Your task to perform on an android device: uninstall "Skype" Image 0: 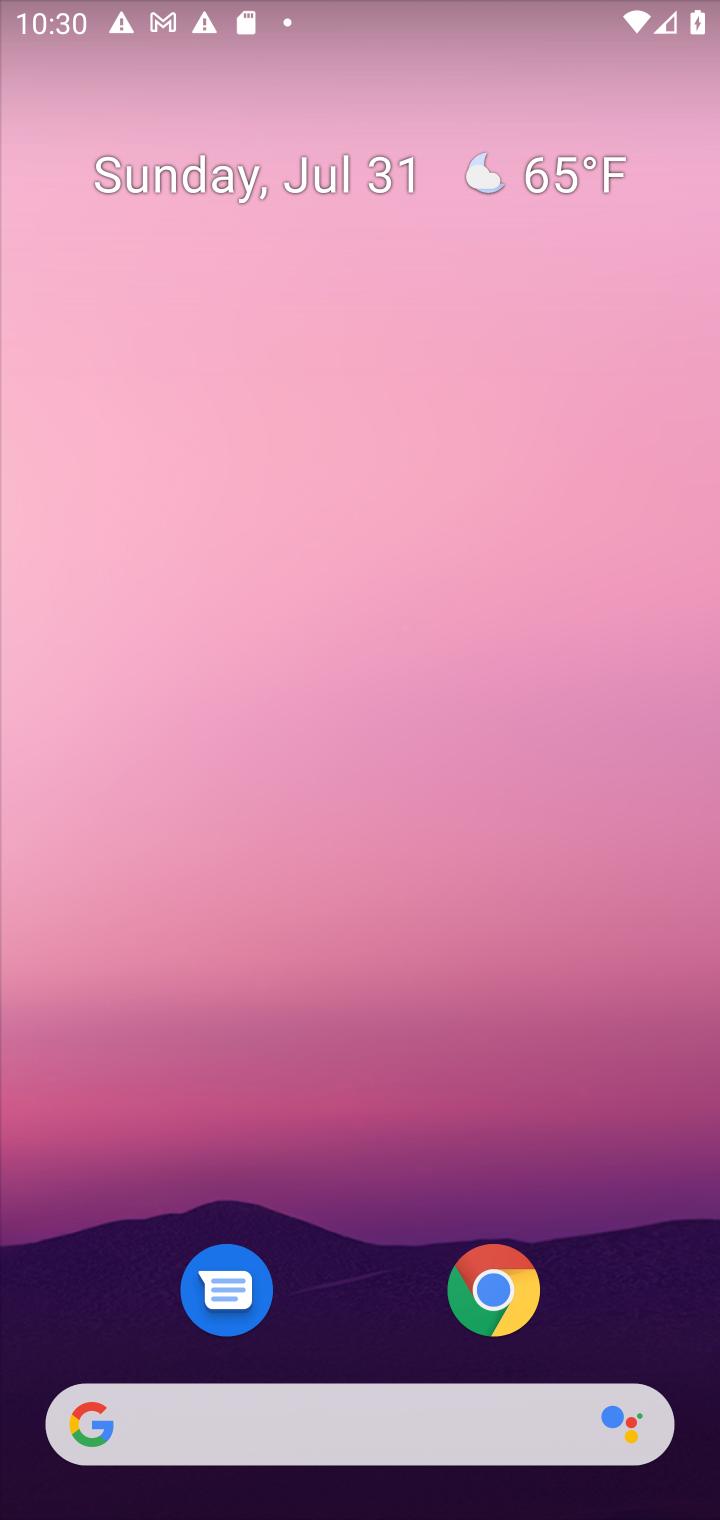
Step 0: press home button
Your task to perform on an android device: uninstall "Skype" Image 1: 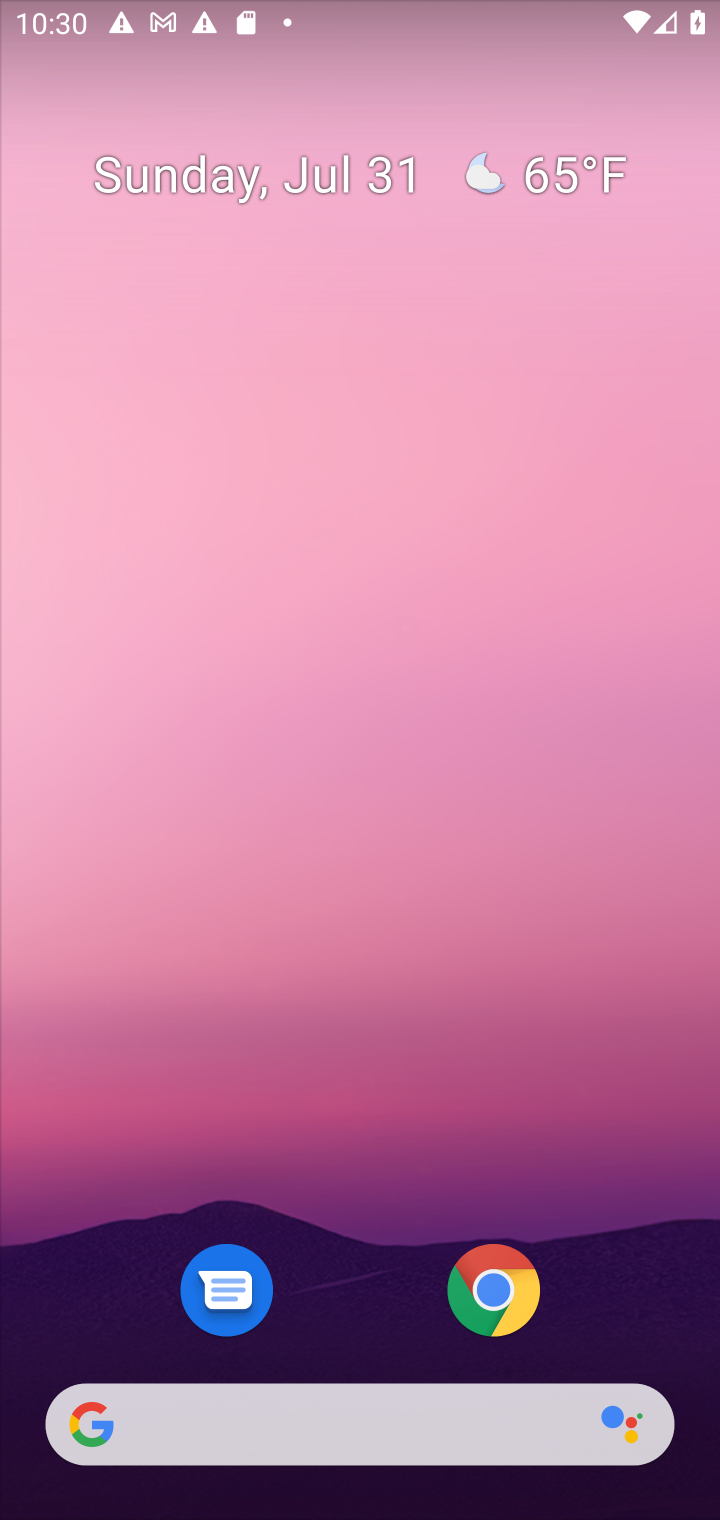
Step 1: drag from (621, 1129) to (508, 82)
Your task to perform on an android device: uninstall "Skype" Image 2: 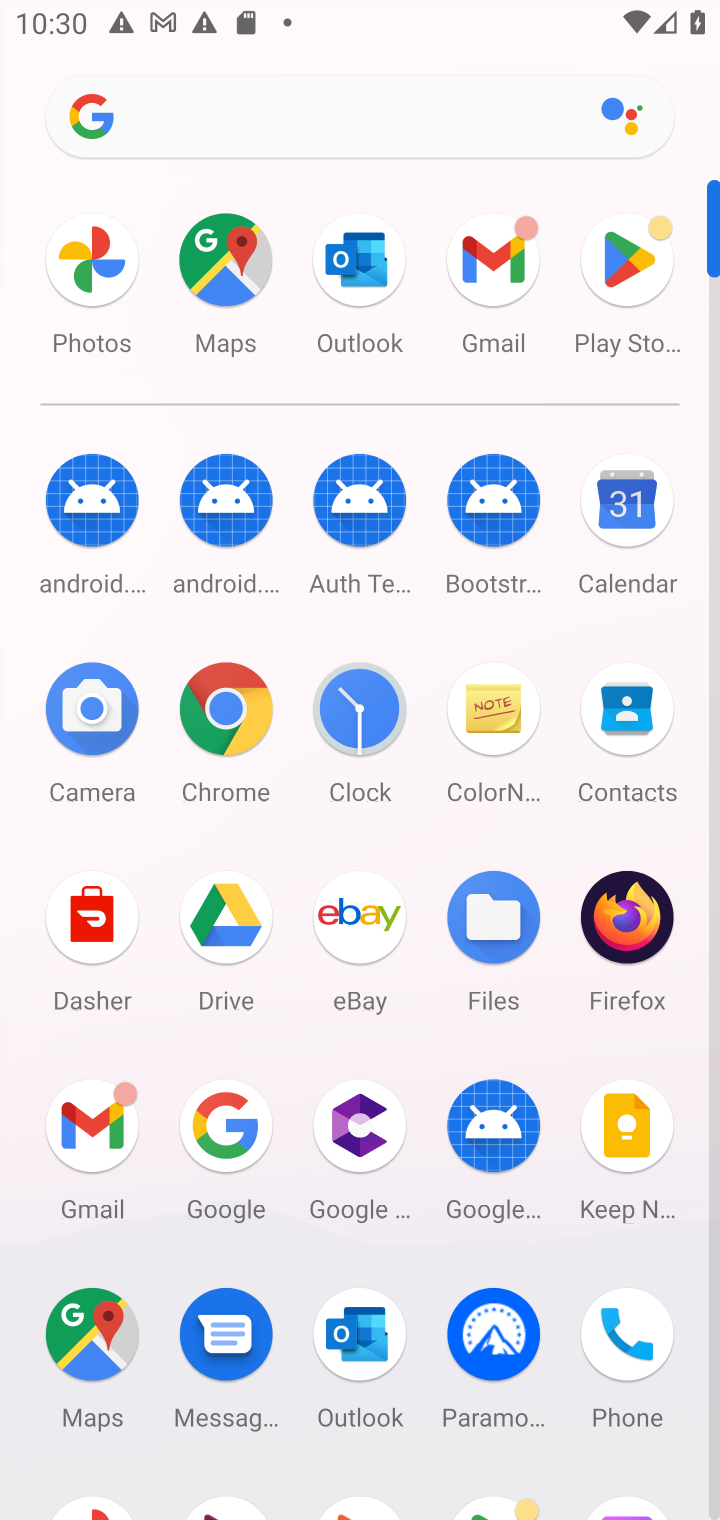
Step 2: click (641, 262)
Your task to perform on an android device: uninstall "Skype" Image 3: 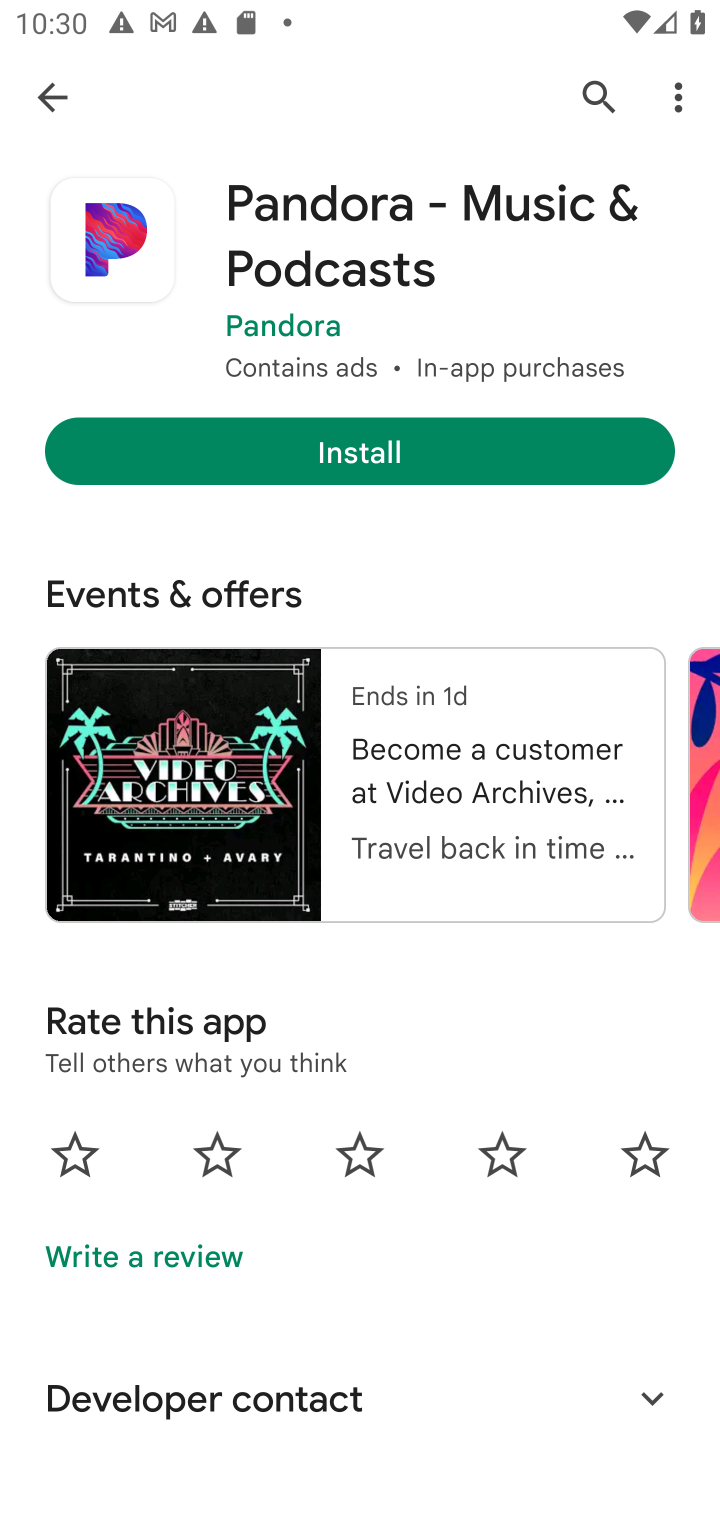
Step 3: click (592, 96)
Your task to perform on an android device: uninstall "Skype" Image 4: 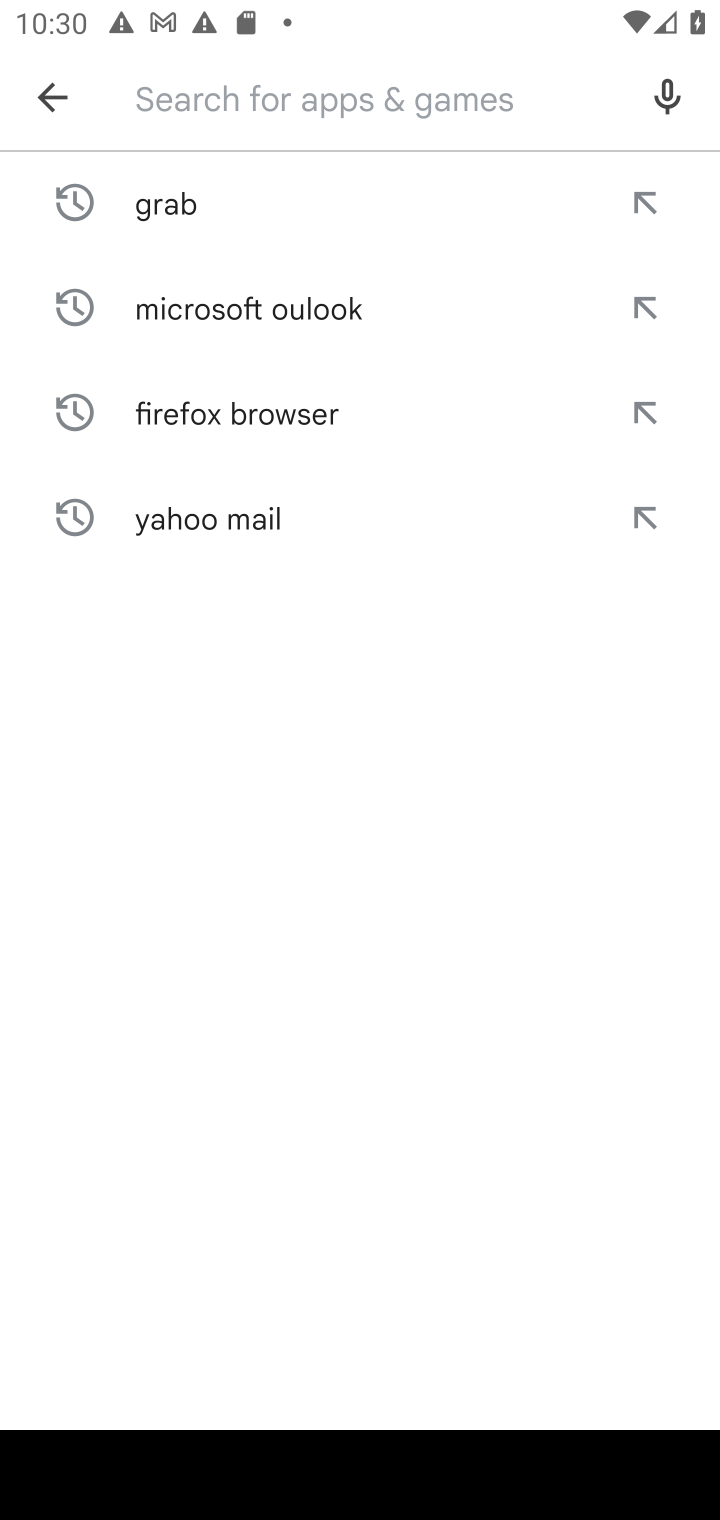
Step 4: type "skype"
Your task to perform on an android device: uninstall "Skype" Image 5: 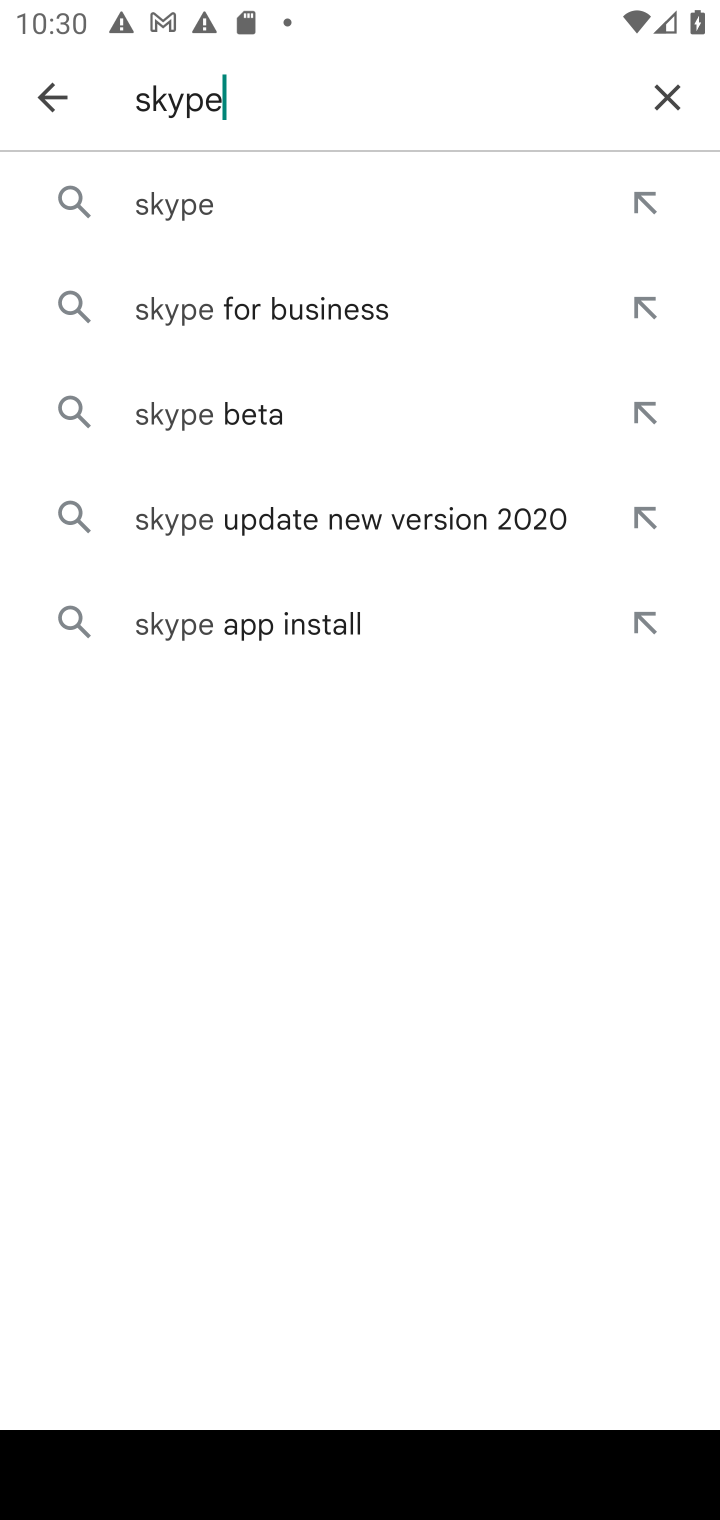
Step 5: click (206, 199)
Your task to perform on an android device: uninstall "Skype" Image 6: 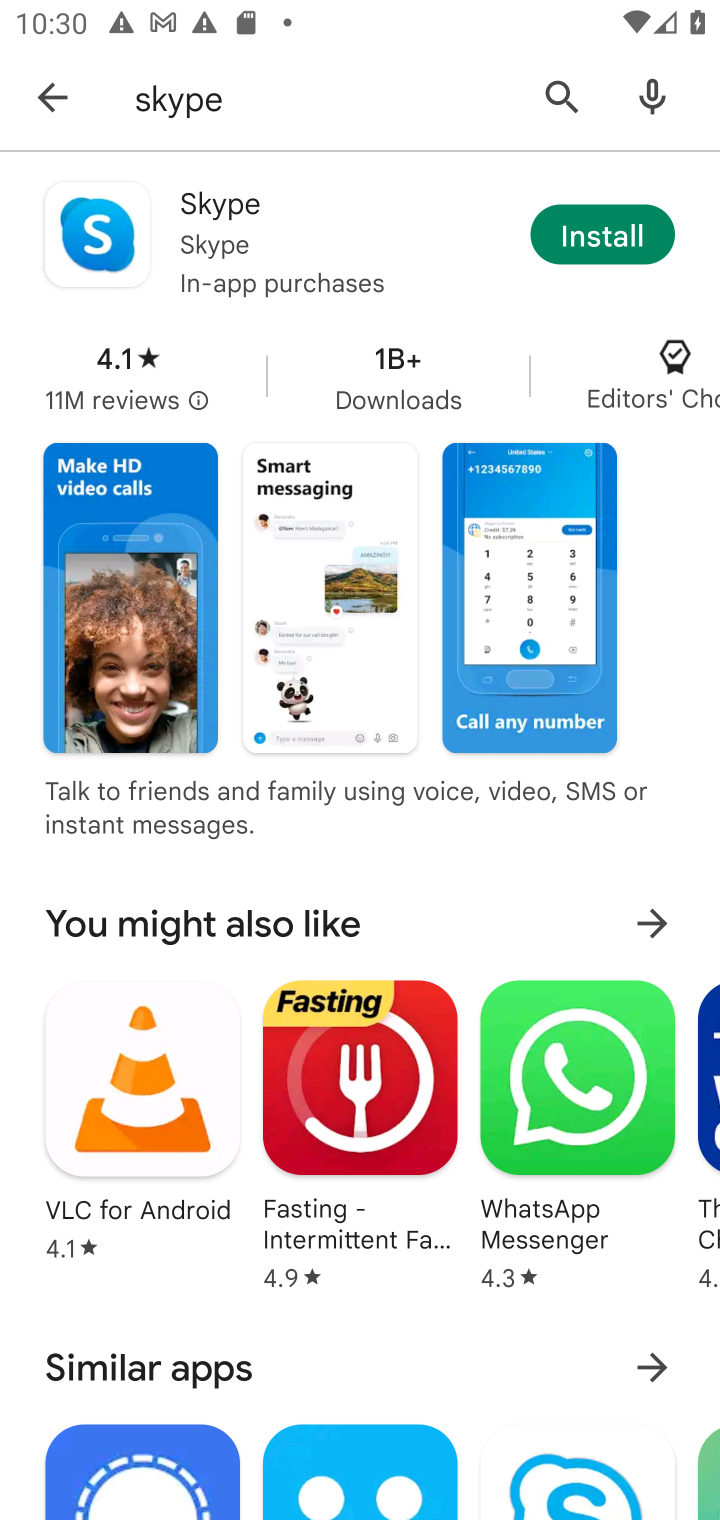
Step 6: task complete